Your task to perform on an android device: What's the weather like in Chicago? Image 0: 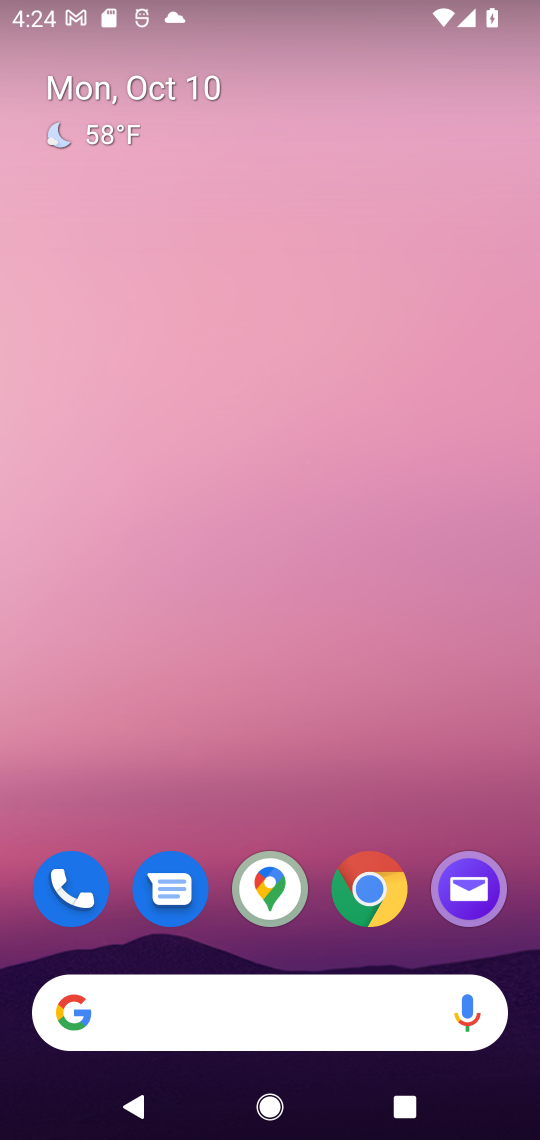
Step 0: click (365, 883)
Your task to perform on an android device: What's the weather like in Chicago? Image 1: 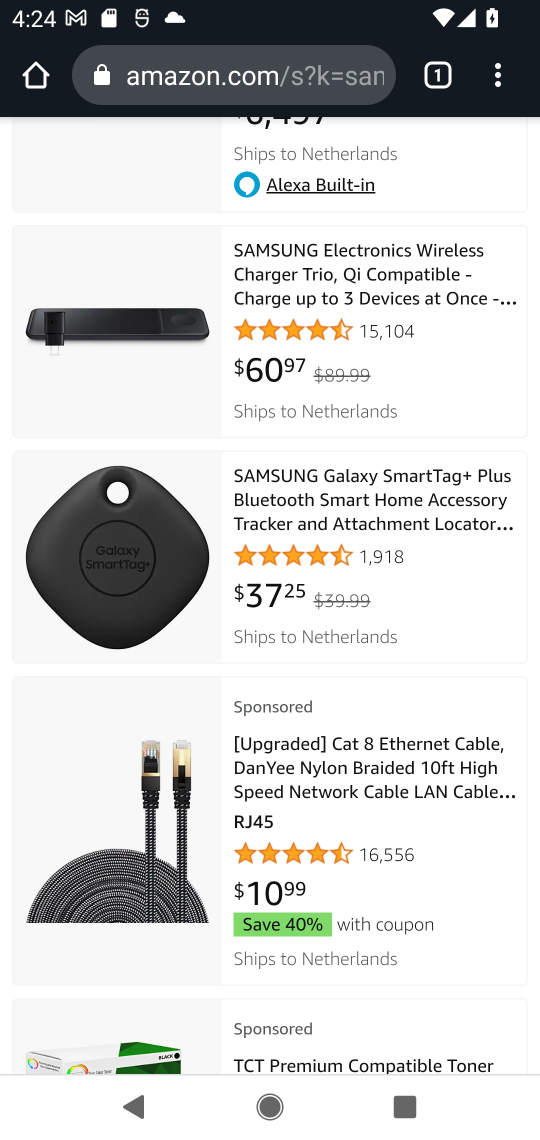
Step 1: click (281, 55)
Your task to perform on an android device: What's the weather like in Chicago? Image 2: 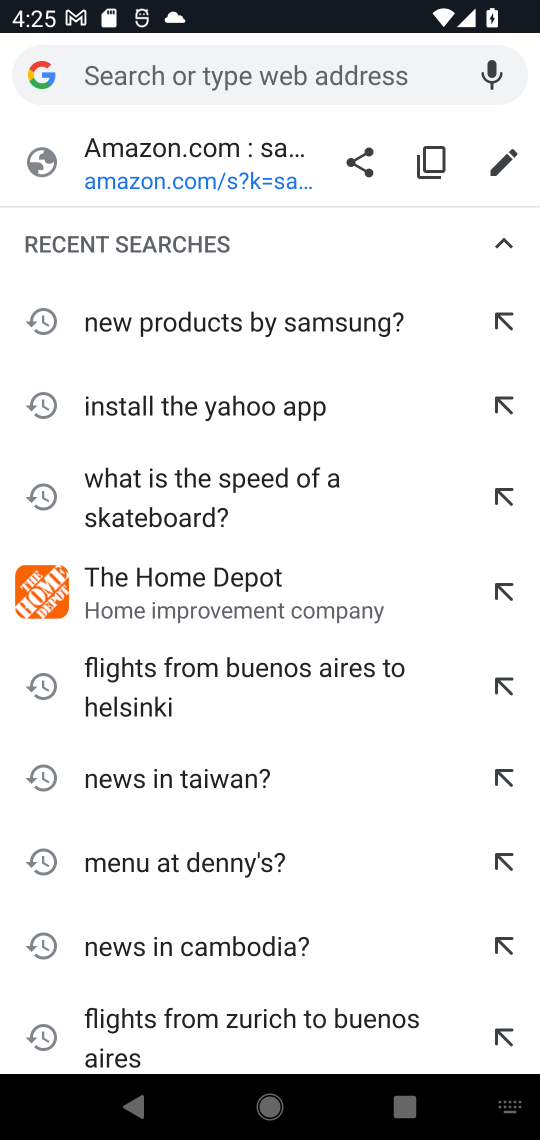
Step 2: type "weather like in Chicago?"
Your task to perform on an android device: What's the weather like in Chicago? Image 3: 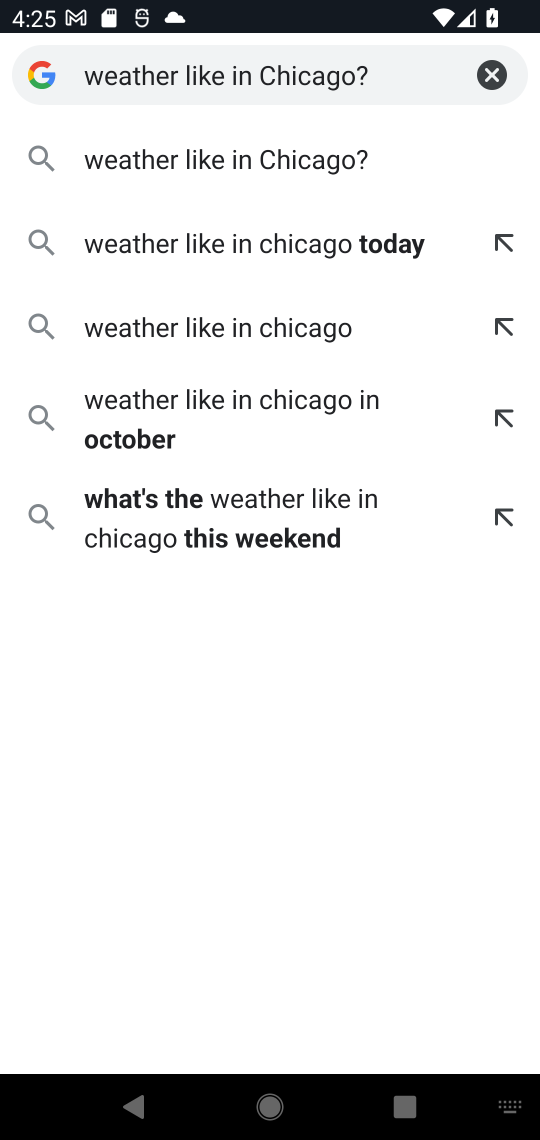
Step 3: click (168, 162)
Your task to perform on an android device: What's the weather like in Chicago? Image 4: 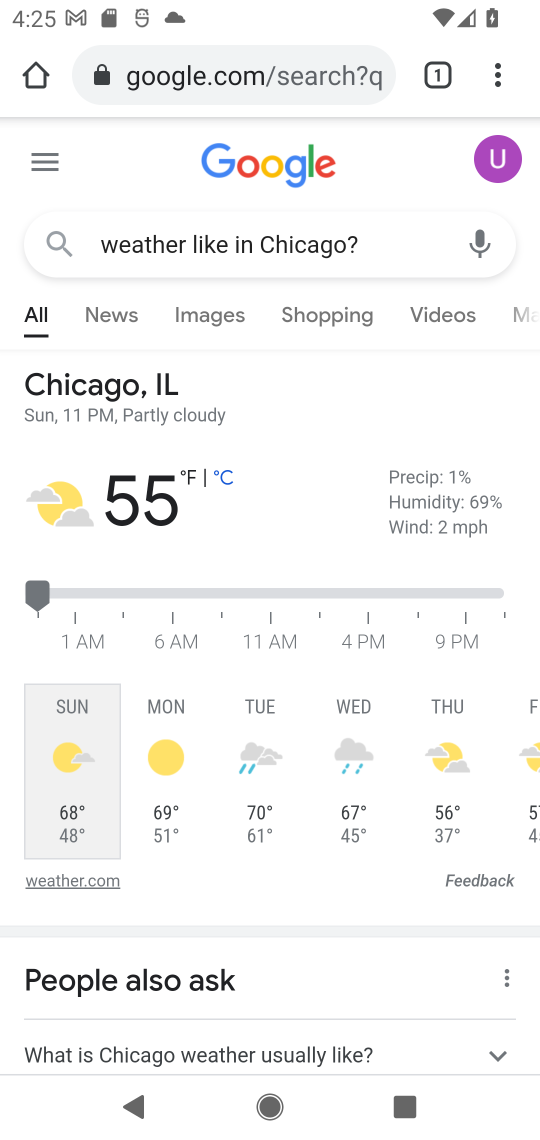
Step 4: task complete